Your task to perform on an android device: Go to display settings Image 0: 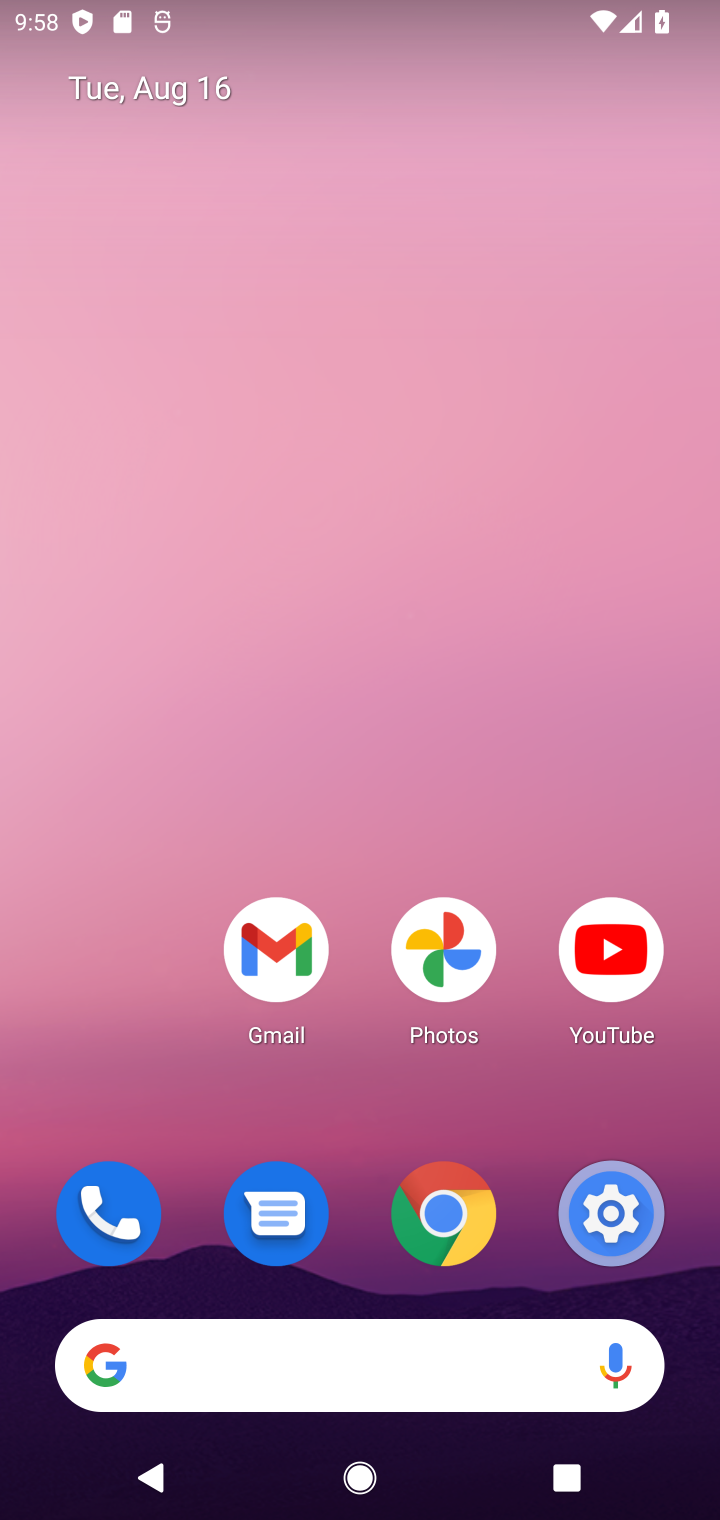
Step 0: click (626, 1231)
Your task to perform on an android device: Go to display settings Image 1: 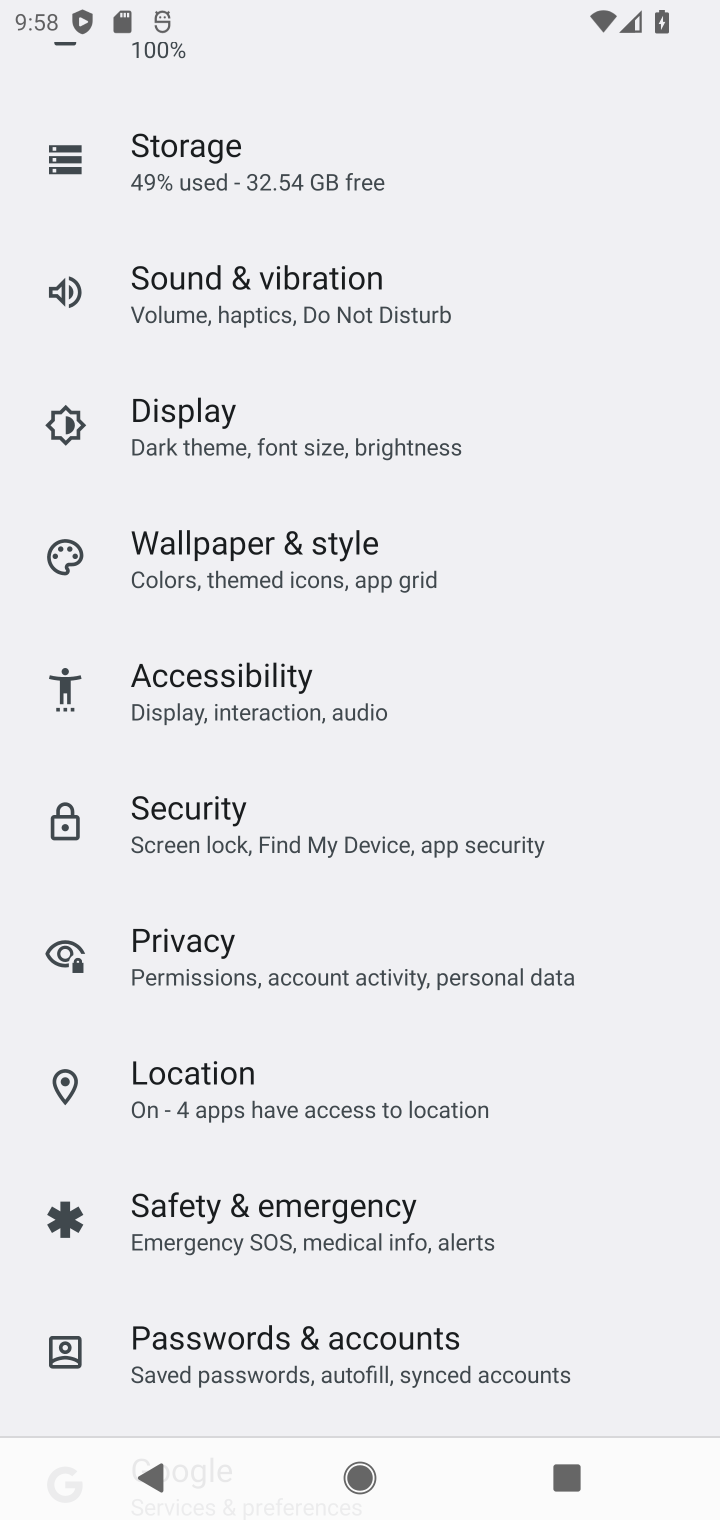
Step 1: click (397, 429)
Your task to perform on an android device: Go to display settings Image 2: 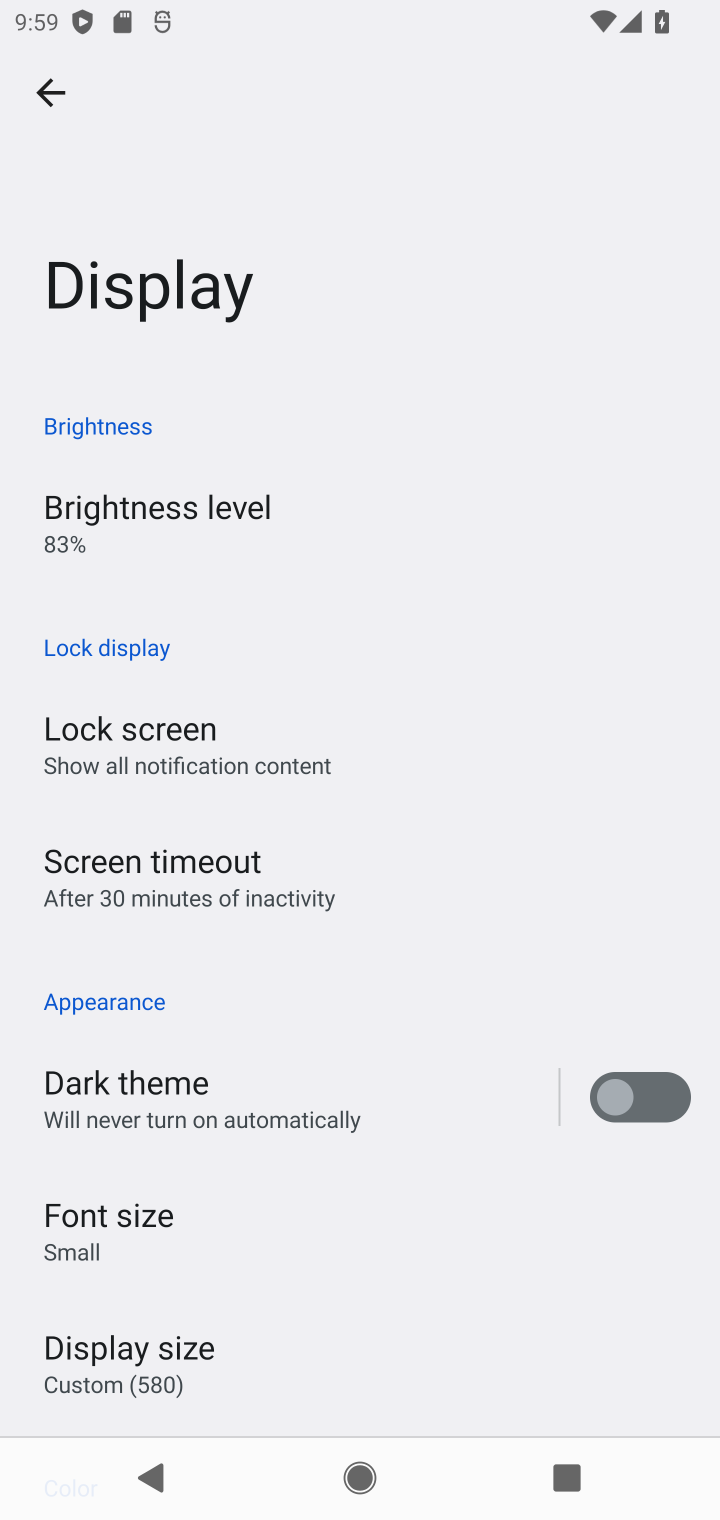
Step 2: task complete